Your task to perform on an android device: find which apps use the phone's location Image 0: 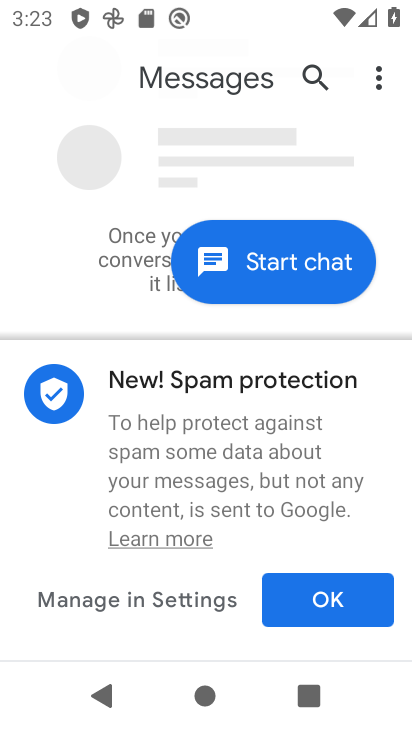
Step 0: press home button
Your task to perform on an android device: find which apps use the phone's location Image 1: 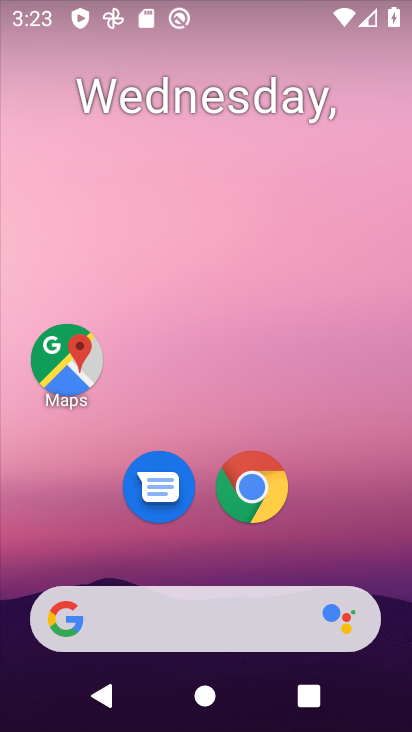
Step 1: drag from (368, 529) to (341, 81)
Your task to perform on an android device: find which apps use the phone's location Image 2: 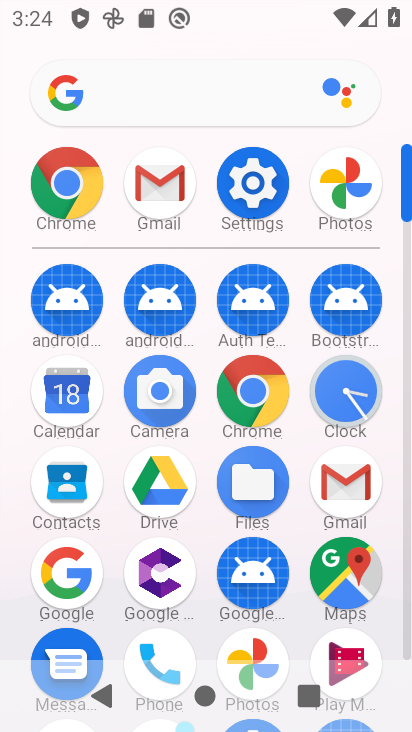
Step 2: drag from (394, 499) to (386, 311)
Your task to perform on an android device: find which apps use the phone's location Image 3: 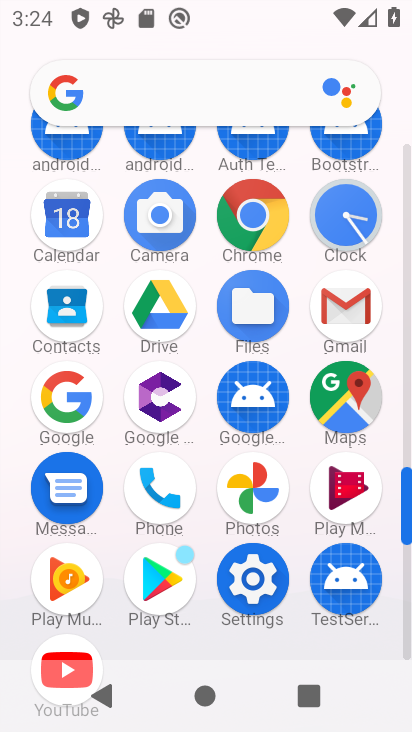
Step 3: click (258, 579)
Your task to perform on an android device: find which apps use the phone's location Image 4: 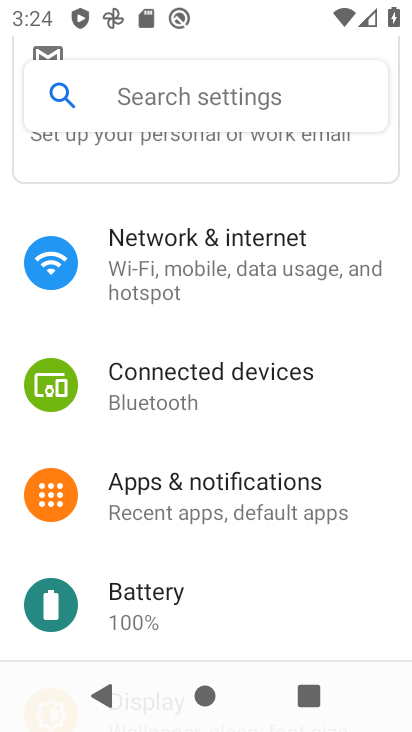
Step 4: drag from (359, 593) to (347, 432)
Your task to perform on an android device: find which apps use the phone's location Image 5: 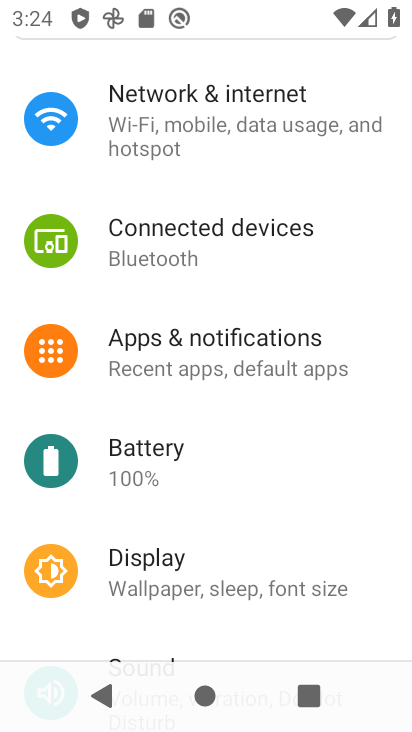
Step 5: drag from (350, 619) to (355, 504)
Your task to perform on an android device: find which apps use the phone's location Image 6: 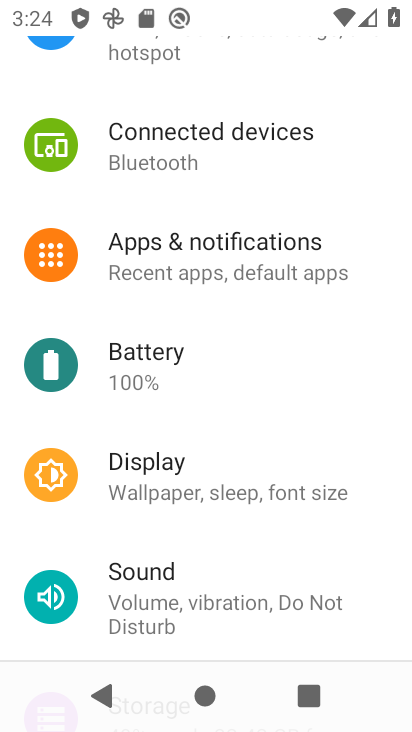
Step 6: drag from (349, 588) to (345, 509)
Your task to perform on an android device: find which apps use the phone's location Image 7: 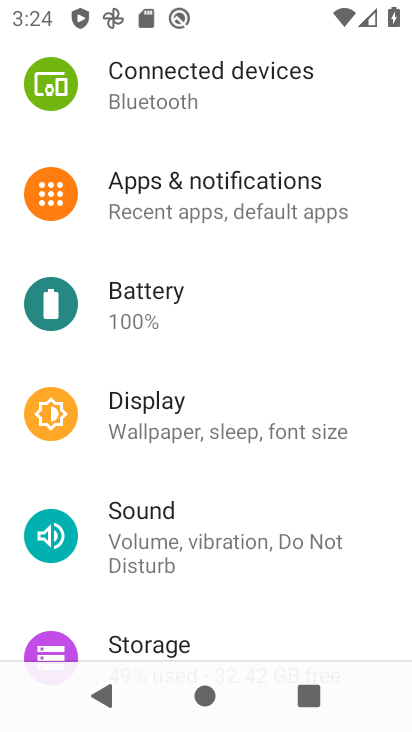
Step 7: drag from (342, 627) to (336, 473)
Your task to perform on an android device: find which apps use the phone's location Image 8: 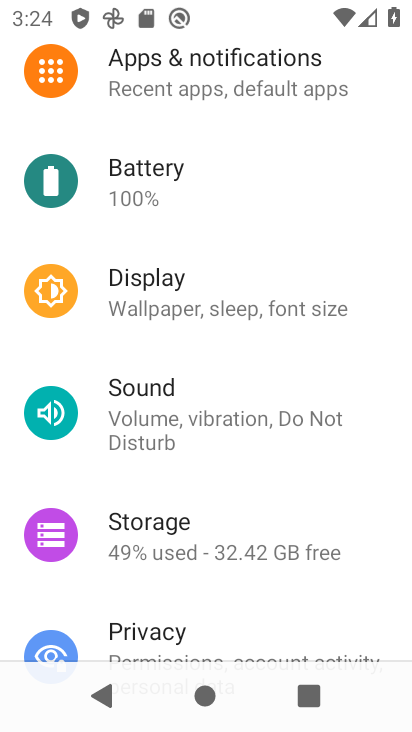
Step 8: drag from (332, 591) to (329, 478)
Your task to perform on an android device: find which apps use the phone's location Image 9: 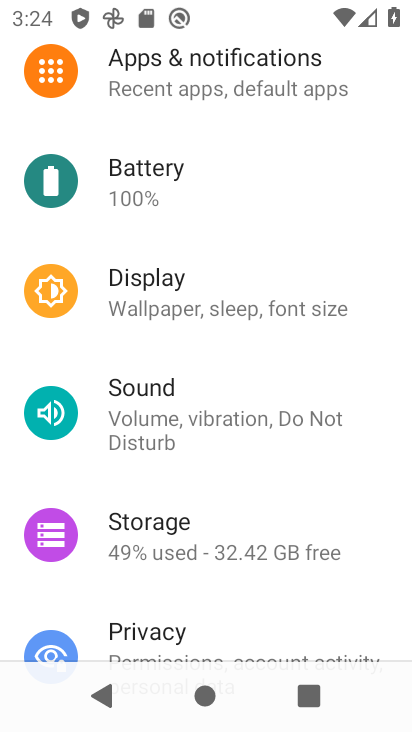
Step 9: drag from (302, 552) to (305, 458)
Your task to perform on an android device: find which apps use the phone's location Image 10: 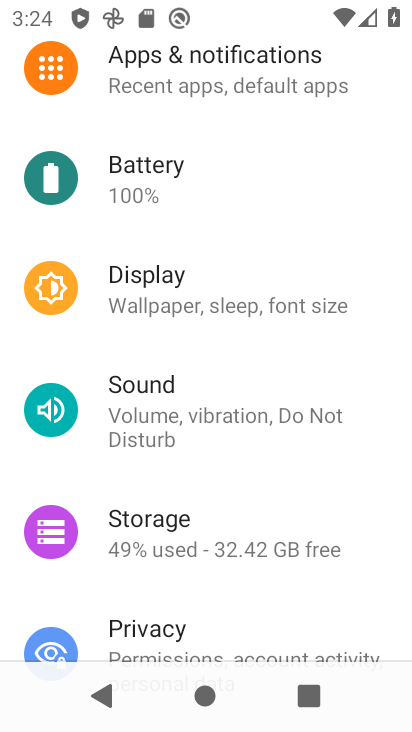
Step 10: drag from (345, 480) to (346, 409)
Your task to perform on an android device: find which apps use the phone's location Image 11: 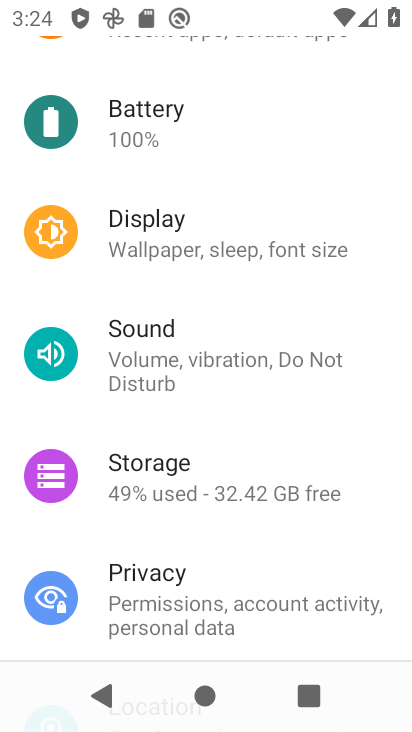
Step 11: drag from (322, 611) to (328, 486)
Your task to perform on an android device: find which apps use the phone's location Image 12: 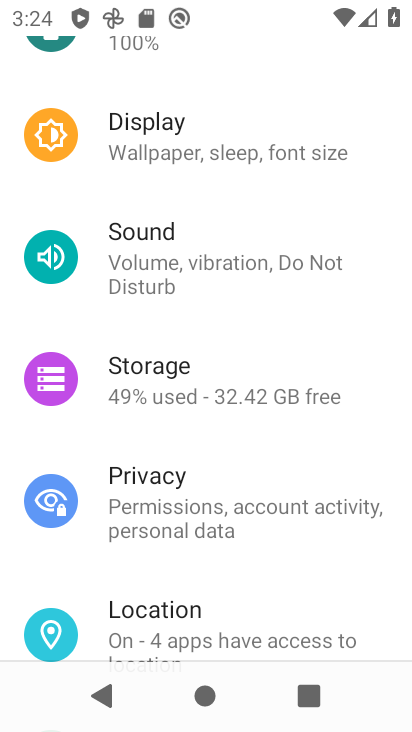
Step 12: drag from (317, 586) to (318, 468)
Your task to perform on an android device: find which apps use the phone's location Image 13: 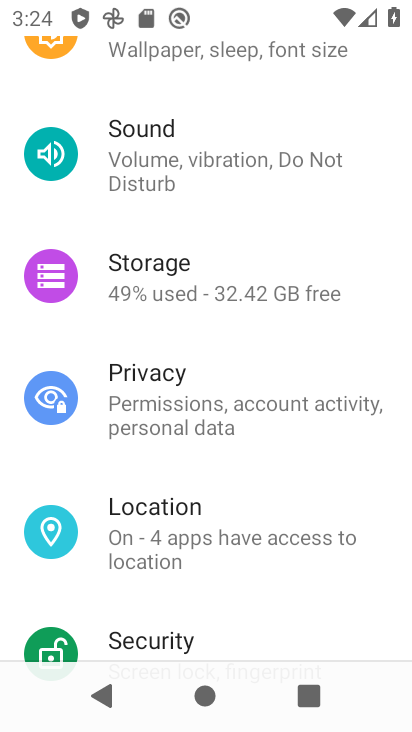
Step 13: drag from (286, 605) to (276, 515)
Your task to perform on an android device: find which apps use the phone's location Image 14: 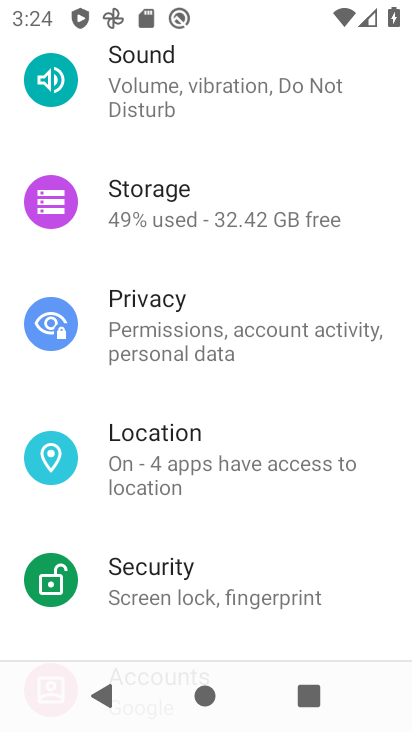
Step 14: click (254, 465)
Your task to perform on an android device: find which apps use the phone's location Image 15: 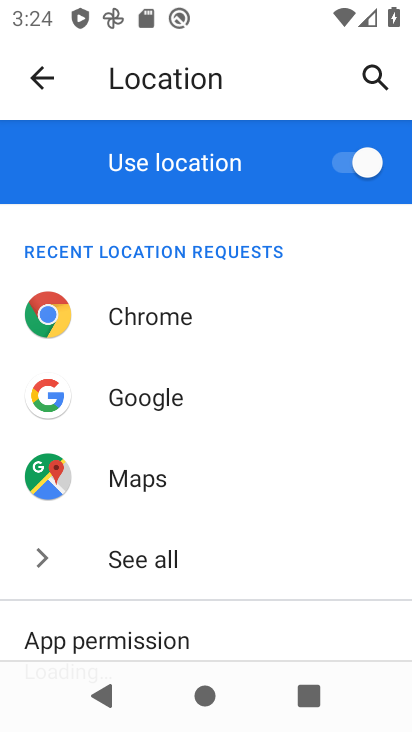
Step 15: drag from (258, 580) to (266, 430)
Your task to perform on an android device: find which apps use the phone's location Image 16: 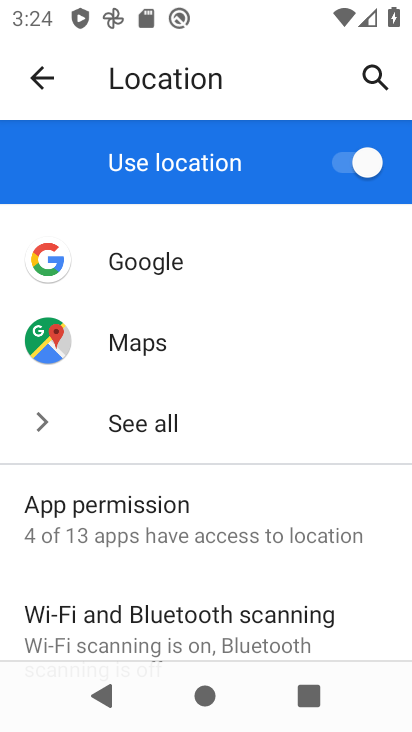
Step 16: click (243, 540)
Your task to perform on an android device: find which apps use the phone's location Image 17: 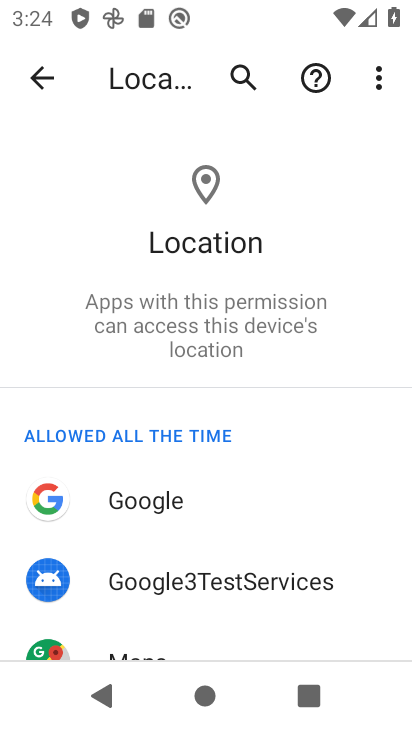
Step 17: drag from (243, 540) to (240, 417)
Your task to perform on an android device: find which apps use the phone's location Image 18: 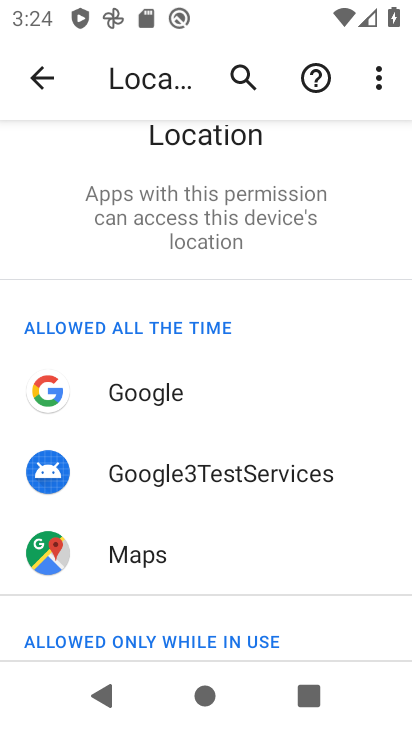
Step 18: drag from (223, 554) to (238, 423)
Your task to perform on an android device: find which apps use the phone's location Image 19: 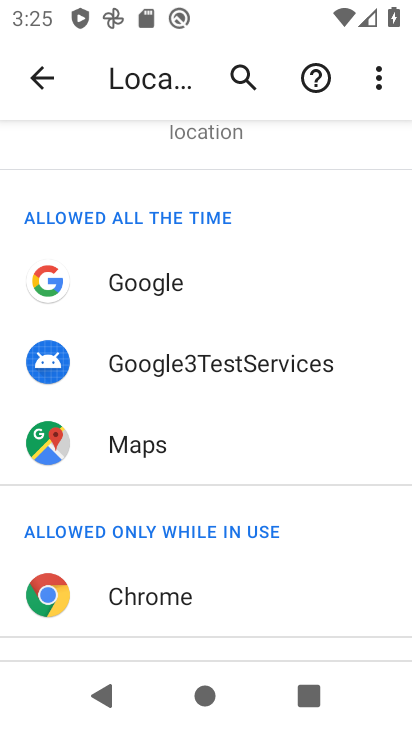
Step 19: drag from (222, 580) to (236, 482)
Your task to perform on an android device: find which apps use the phone's location Image 20: 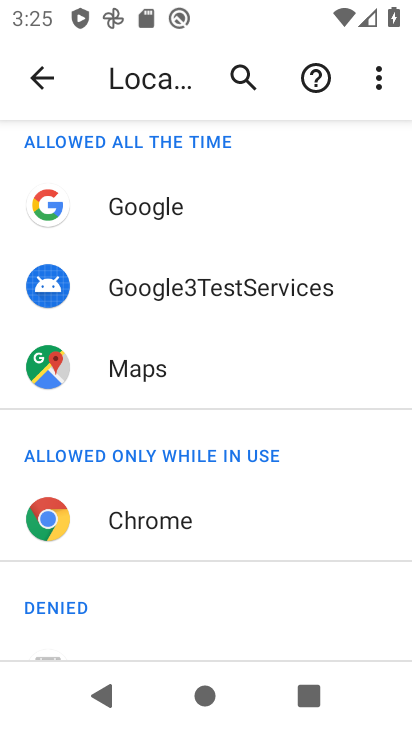
Step 20: drag from (220, 514) to (217, 384)
Your task to perform on an android device: find which apps use the phone's location Image 21: 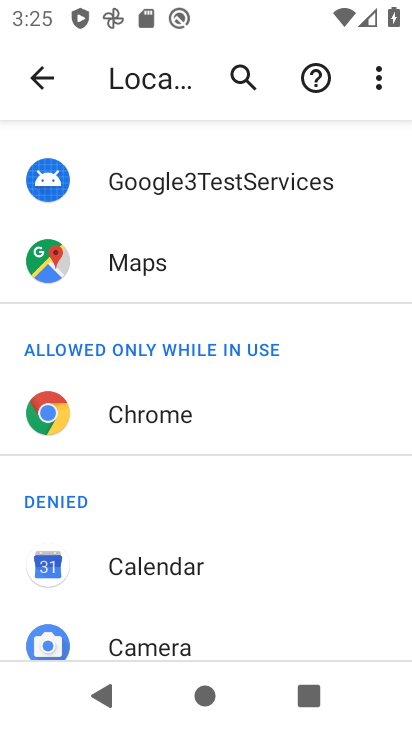
Step 21: drag from (218, 576) to (231, 463)
Your task to perform on an android device: find which apps use the phone's location Image 22: 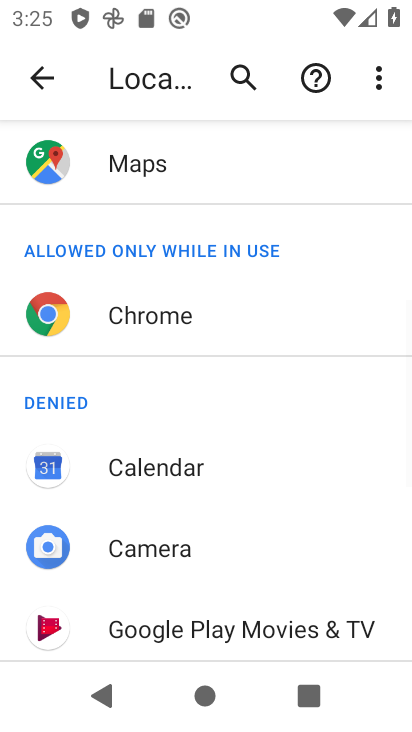
Step 22: drag from (247, 591) to (255, 488)
Your task to perform on an android device: find which apps use the phone's location Image 23: 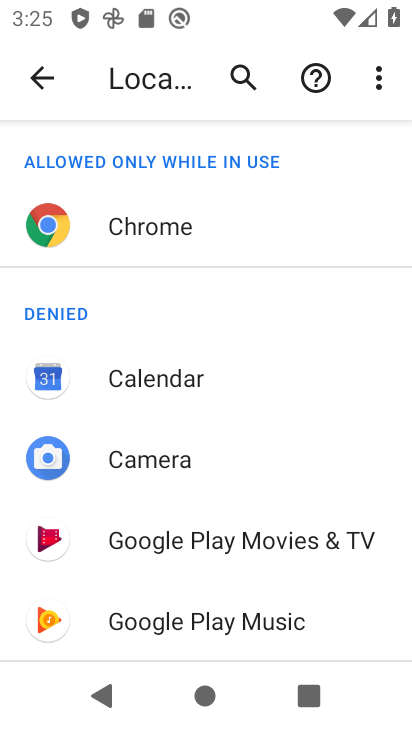
Step 23: drag from (262, 589) to (266, 488)
Your task to perform on an android device: find which apps use the phone's location Image 24: 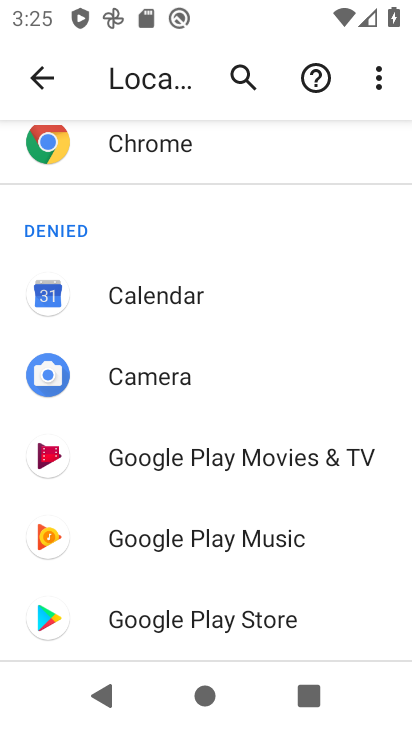
Step 24: drag from (274, 590) to (271, 505)
Your task to perform on an android device: find which apps use the phone's location Image 25: 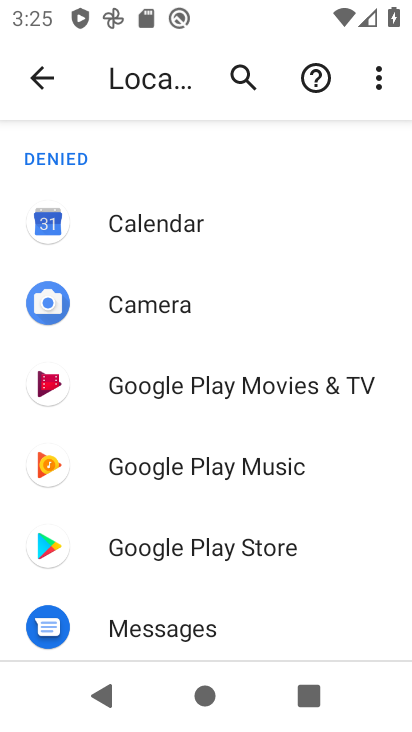
Step 25: drag from (256, 603) to (258, 505)
Your task to perform on an android device: find which apps use the phone's location Image 26: 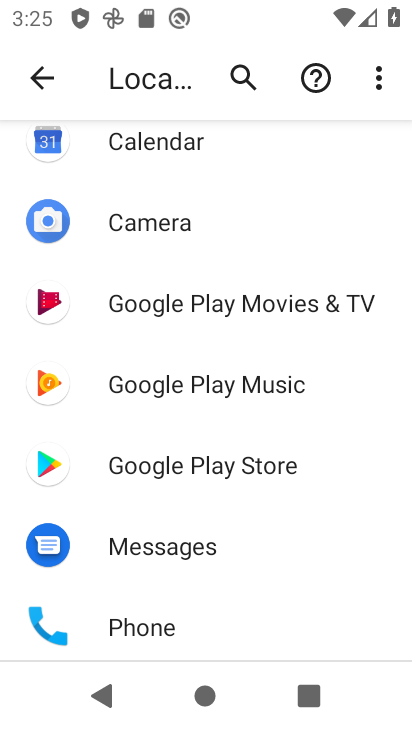
Step 26: drag from (259, 595) to (245, 502)
Your task to perform on an android device: find which apps use the phone's location Image 27: 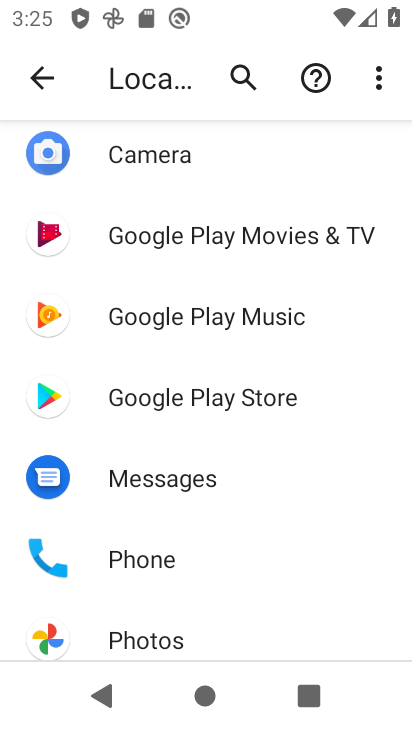
Step 27: drag from (245, 609) to (249, 533)
Your task to perform on an android device: find which apps use the phone's location Image 28: 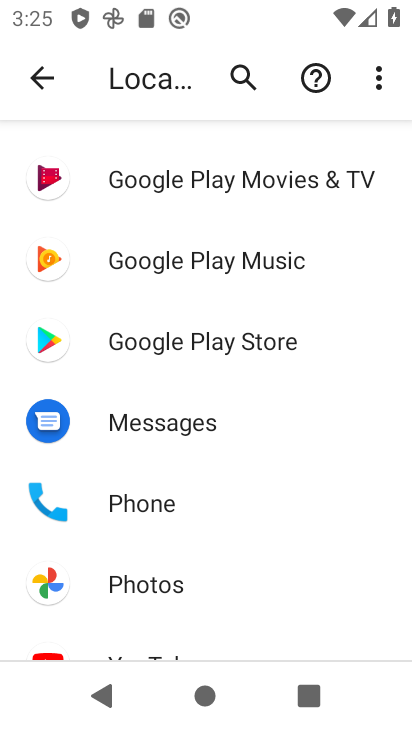
Step 28: click (188, 590)
Your task to perform on an android device: find which apps use the phone's location Image 29: 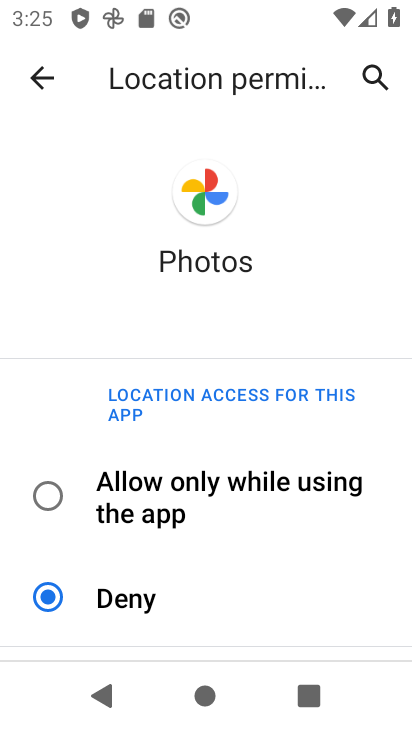
Step 29: click (42, 485)
Your task to perform on an android device: find which apps use the phone's location Image 30: 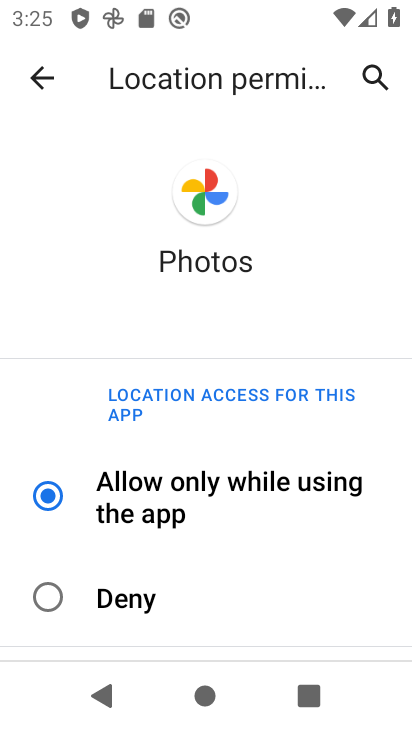
Step 30: task complete